Your task to perform on an android device: Show me the best rated power washer on Home Depot. Image 0: 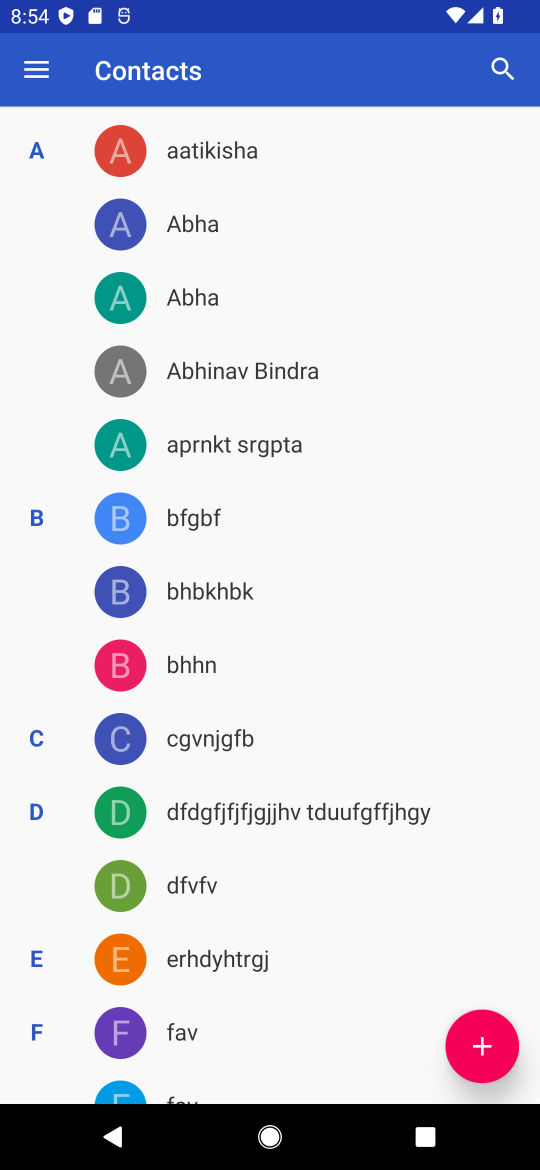
Step 0: press home button
Your task to perform on an android device: Show me the best rated power washer on Home Depot. Image 1: 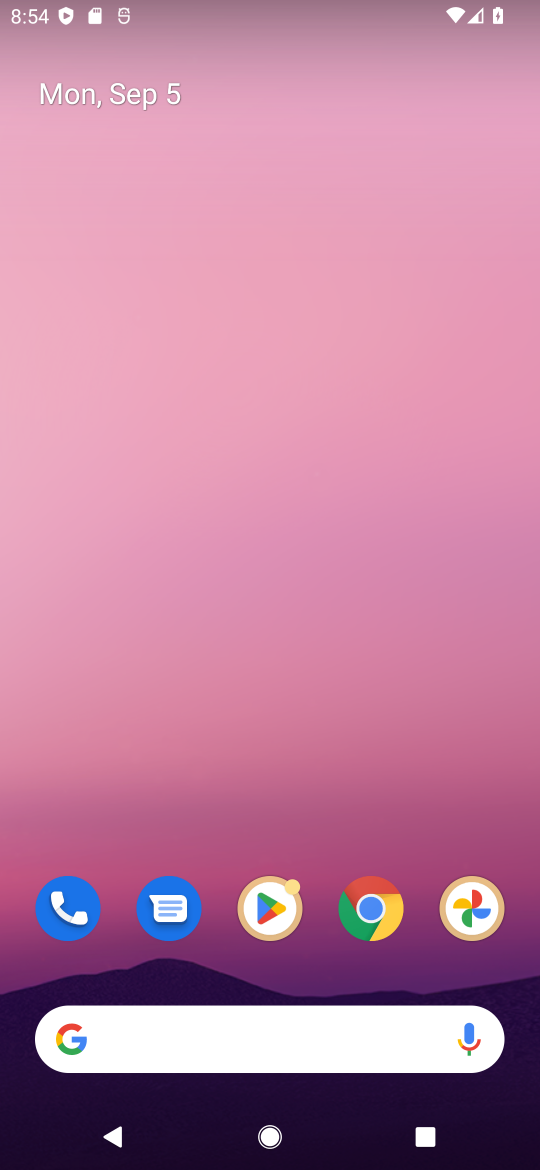
Step 1: drag from (267, 979) to (429, 109)
Your task to perform on an android device: Show me the best rated power washer on Home Depot. Image 2: 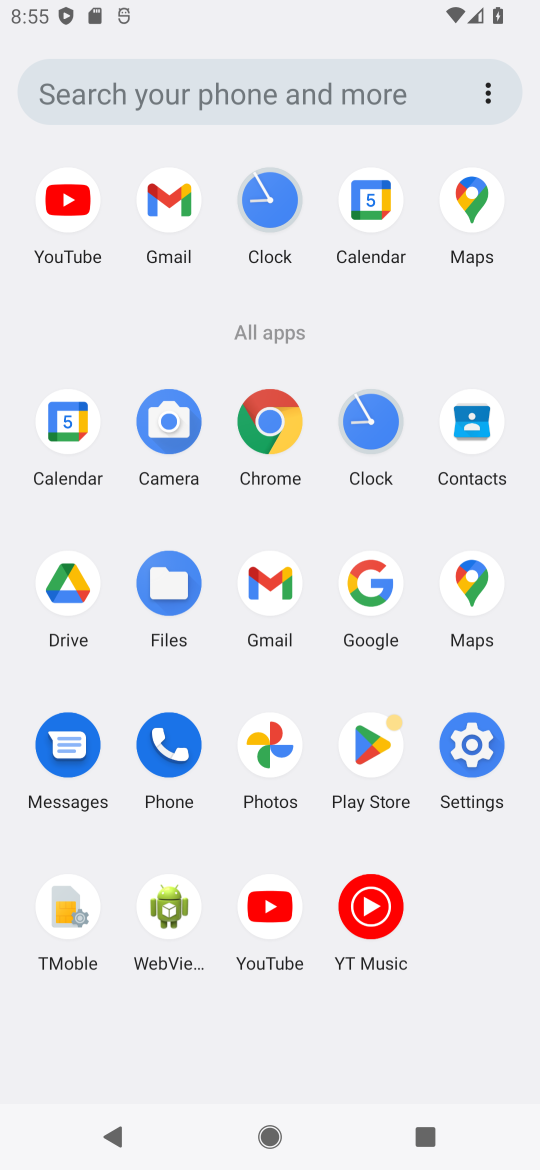
Step 2: click (258, 457)
Your task to perform on an android device: Show me the best rated power washer on Home Depot. Image 3: 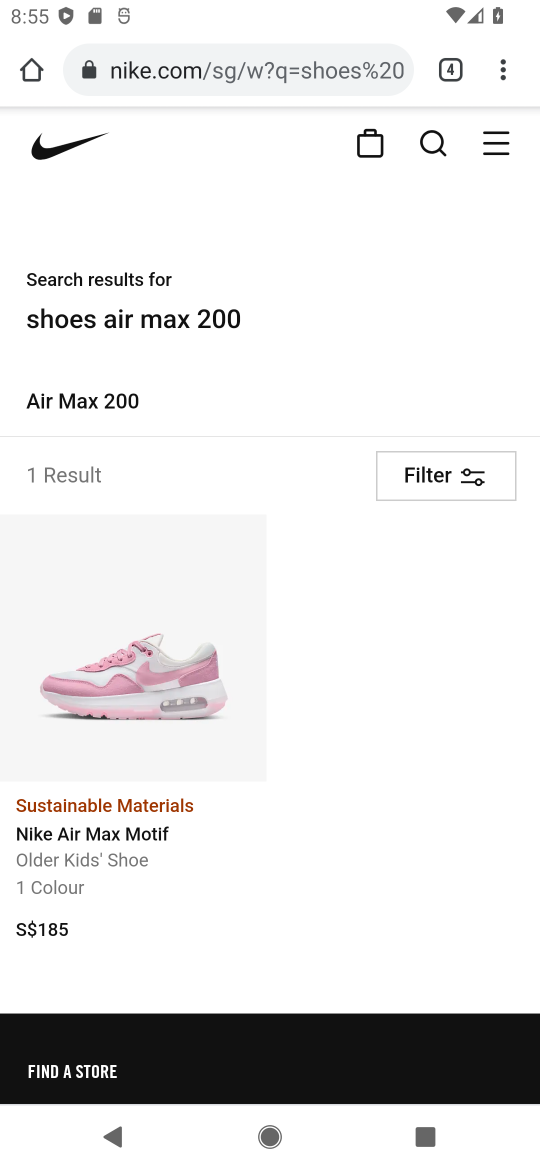
Step 3: click (448, 72)
Your task to perform on an android device: Show me the best rated power washer on Home Depot. Image 4: 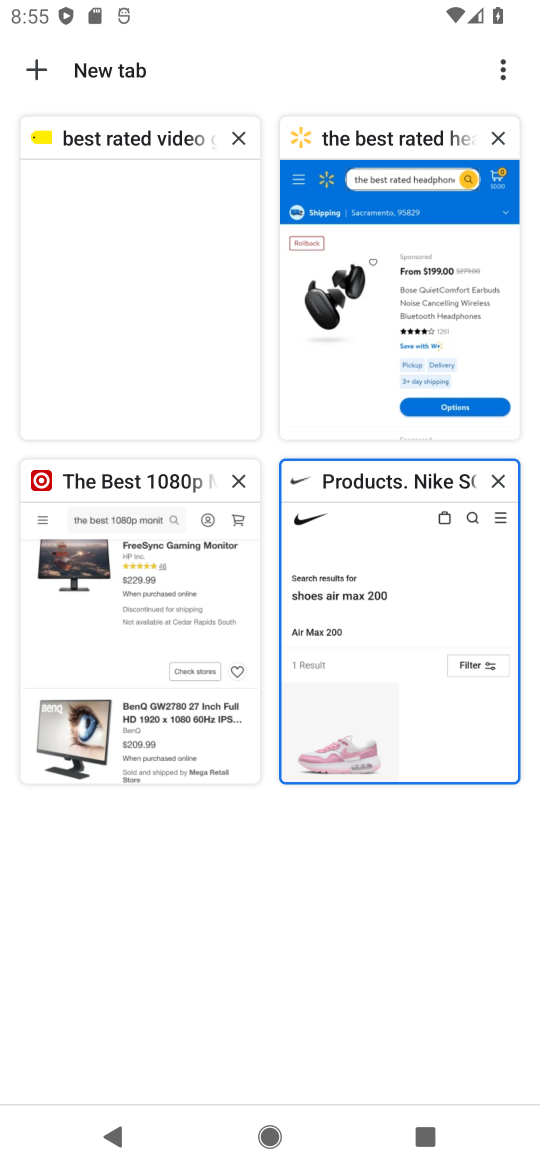
Step 4: click (22, 56)
Your task to perform on an android device: Show me the best rated power washer on Home Depot. Image 5: 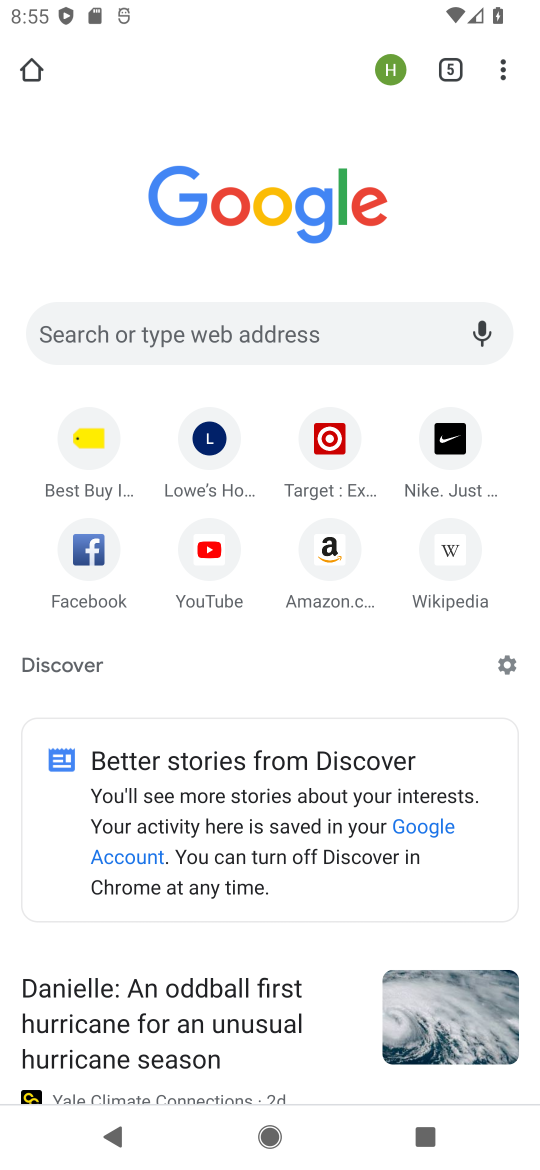
Step 5: click (182, 349)
Your task to perform on an android device: Show me the best rated power washer on Home Depot. Image 6: 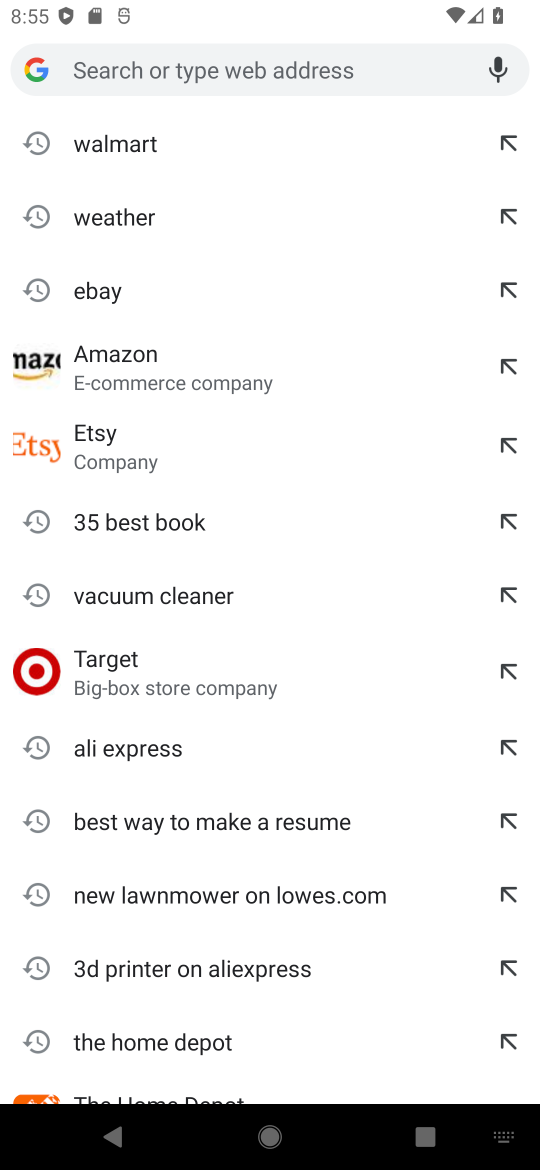
Step 6: type "Home Depot"
Your task to perform on an android device: Show me the best rated power washer on Home Depot. Image 7: 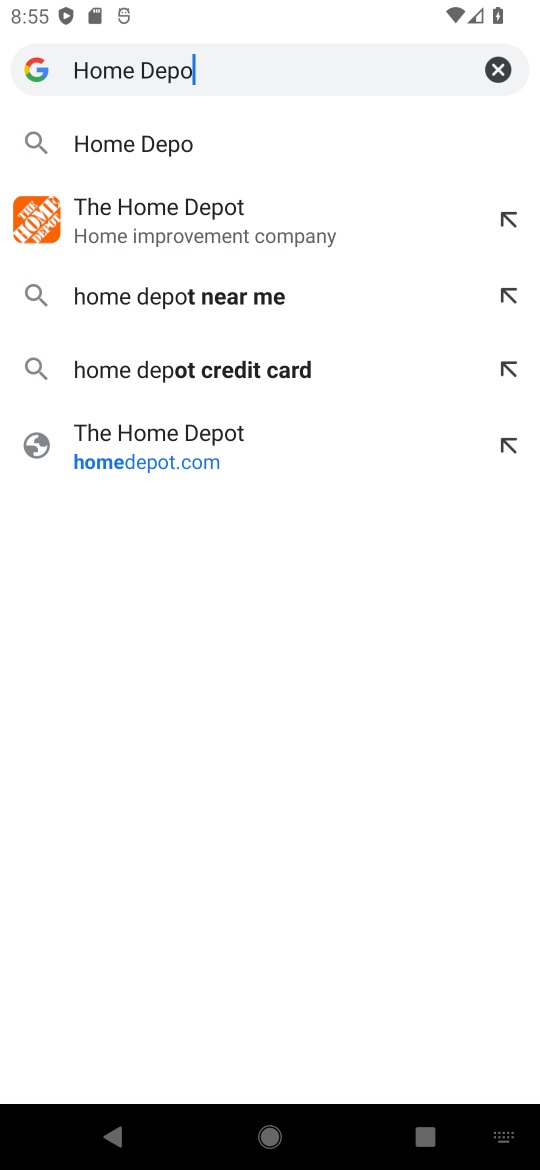
Step 7: type ""
Your task to perform on an android device: Show me the best rated power washer on Home Depot. Image 8: 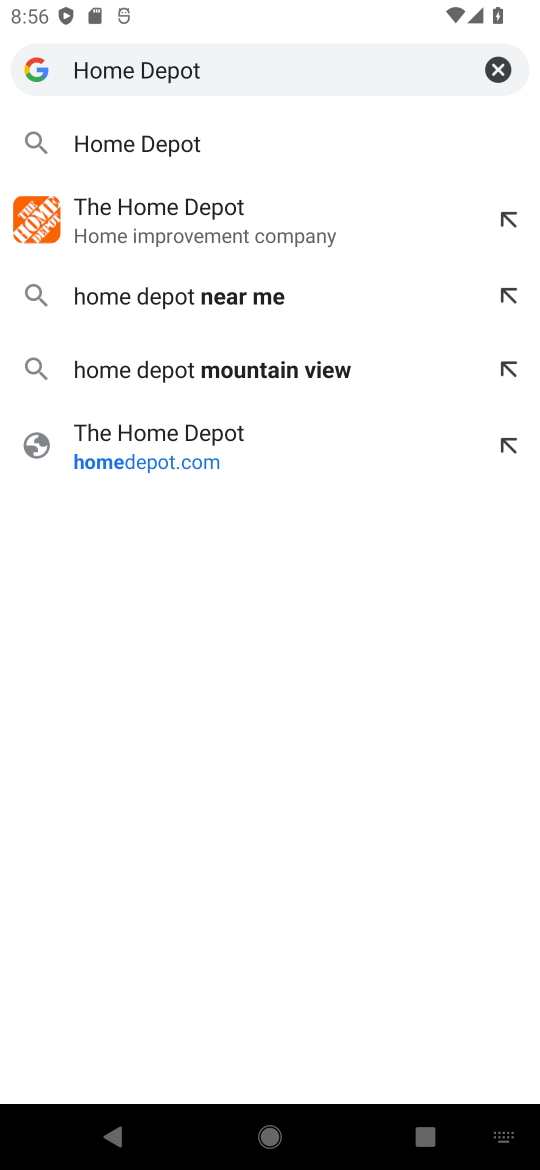
Step 8: click (135, 149)
Your task to perform on an android device: Show me the best rated power washer on Home Depot. Image 9: 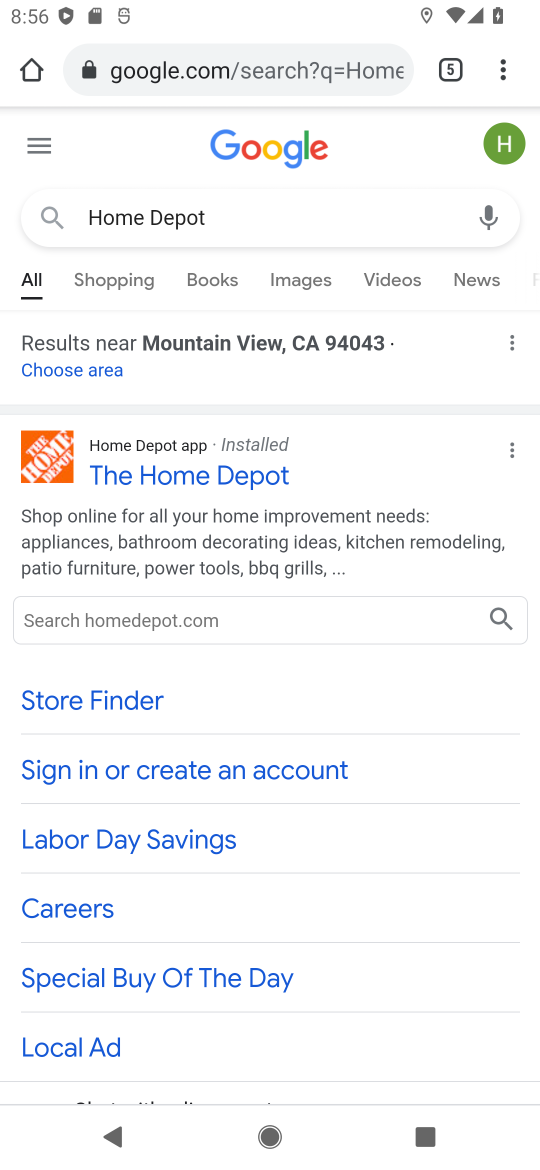
Step 9: click (152, 472)
Your task to perform on an android device: Show me the best rated power washer on Home Depot. Image 10: 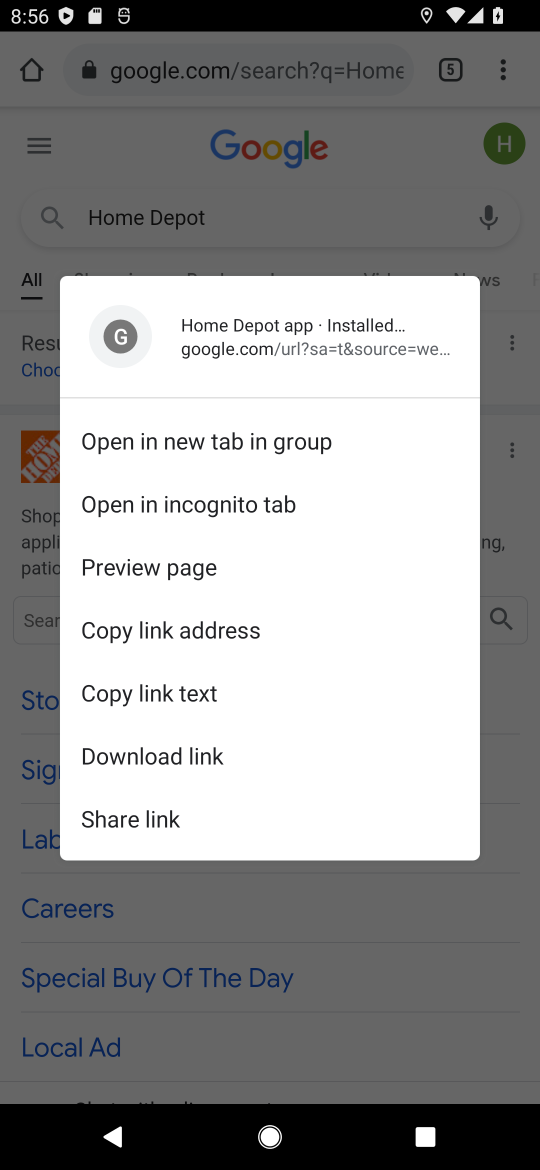
Step 10: click (405, 954)
Your task to perform on an android device: Show me the best rated power washer on Home Depot. Image 11: 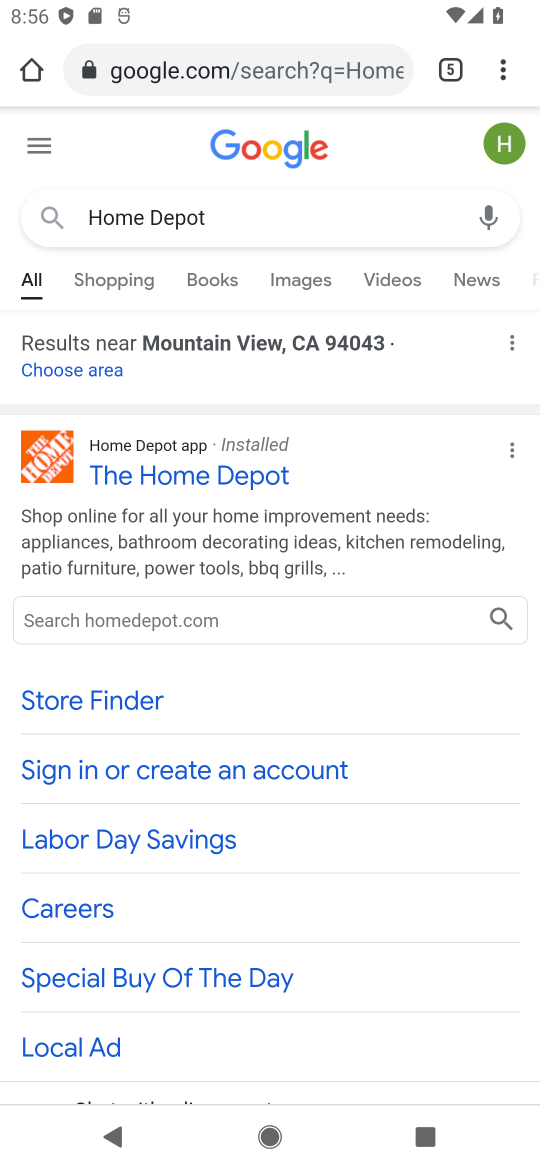
Step 11: click (117, 487)
Your task to perform on an android device: Show me the best rated power washer on Home Depot. Image 12: 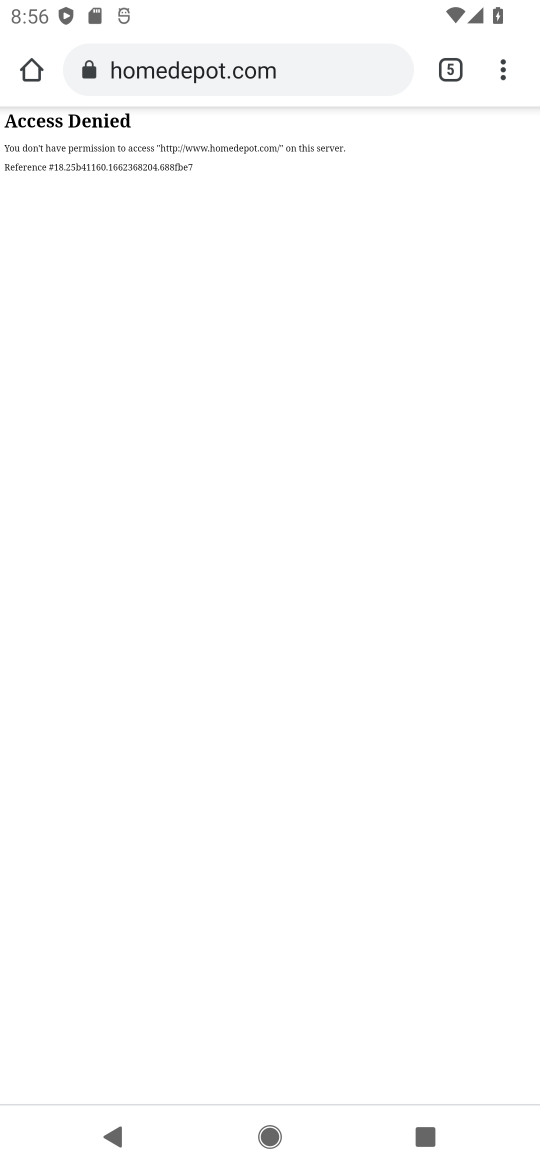
Step 12: task complete